Your task to perform on an android device: change notifications settings Image 0: 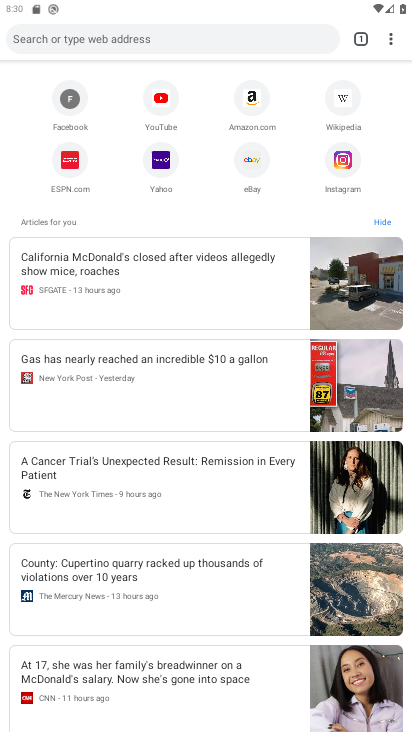
Step 0: press home button
Your task to perform on an android device: change notifications settings Image 1: 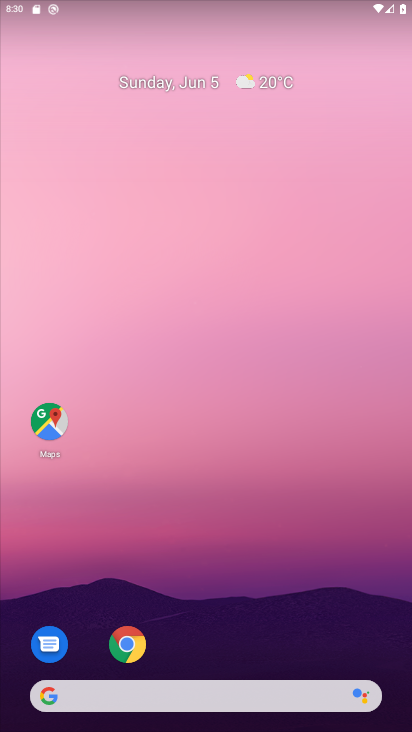
Step 1: drag from (316, 624) to (281, 127)
Your task to perform on an android device: change notifications settings Image 2: 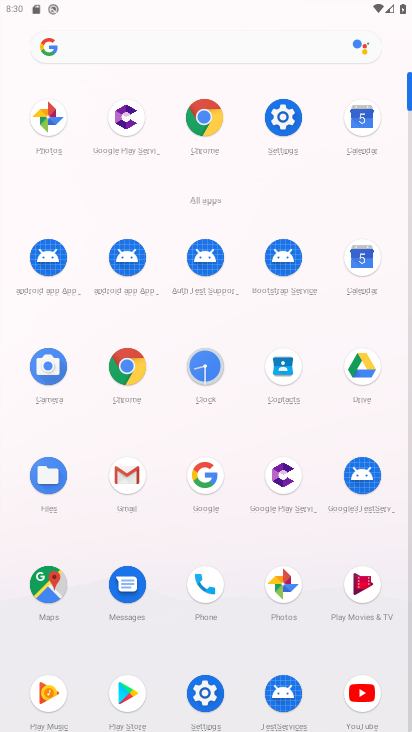
Step 2: click (289, 120)
Your task to perform on an android device: change notifications settings Image 3: 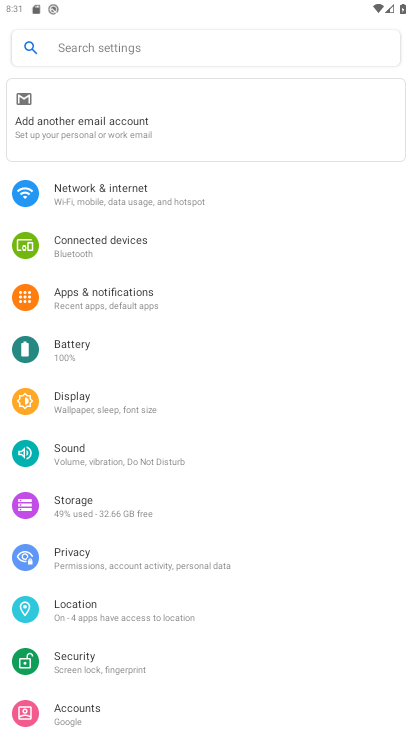
Step 3: click (183, 289)
Your task to perform on an android device: change notifications settings Image 4: 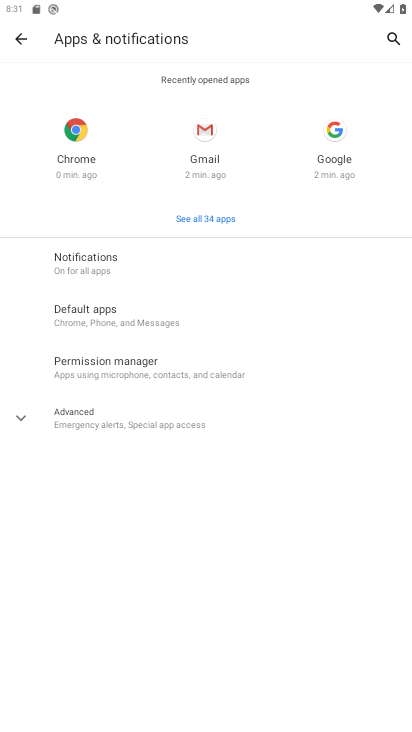
Step 4: click (144, 257)
Your task to perform on an android device: change notifications settings Image 5: 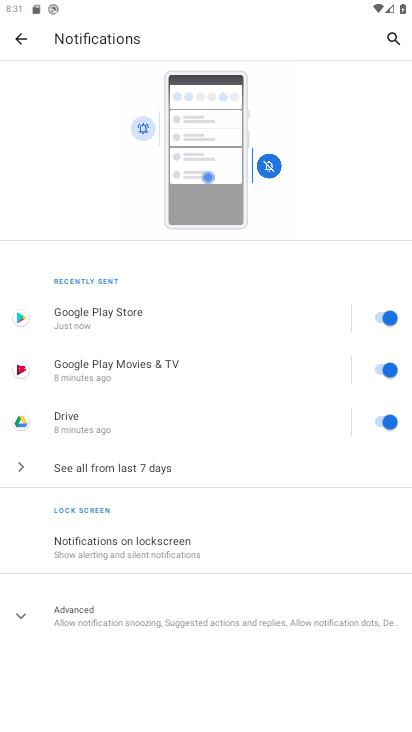
Step 5: click (380, 370)
Your task to perform on an android device: change notifications settings Image 6: 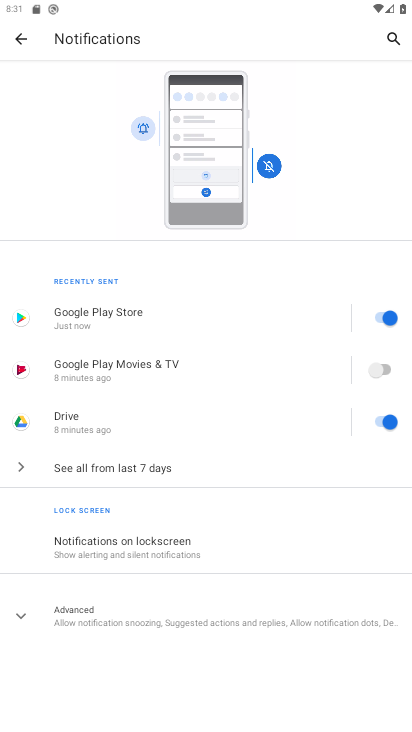
Step 6: task complete